Your task to perform on an android device: Check the weather Image 0: 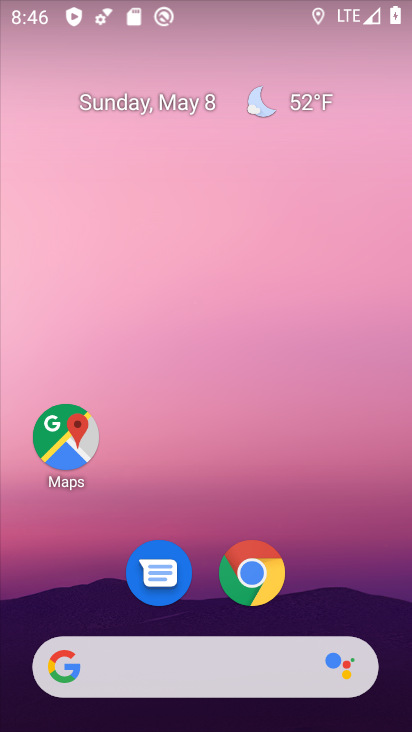
Step 0: click (257, 103)
Your task to perform on an android device: Check the weather Image 1: 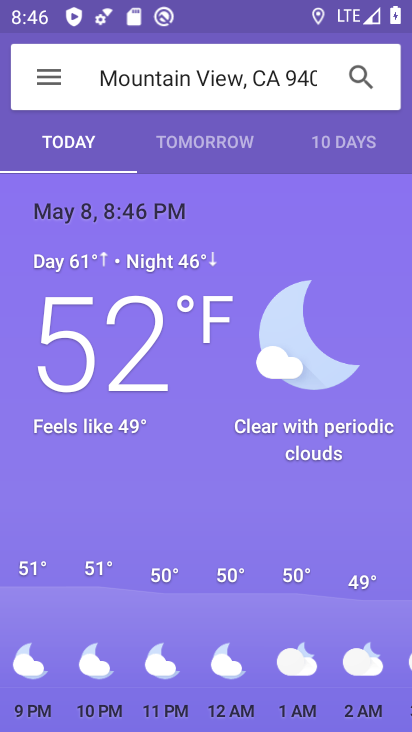
Step 1: task complete